Your task to perform on an android device: delete location history Image 0: 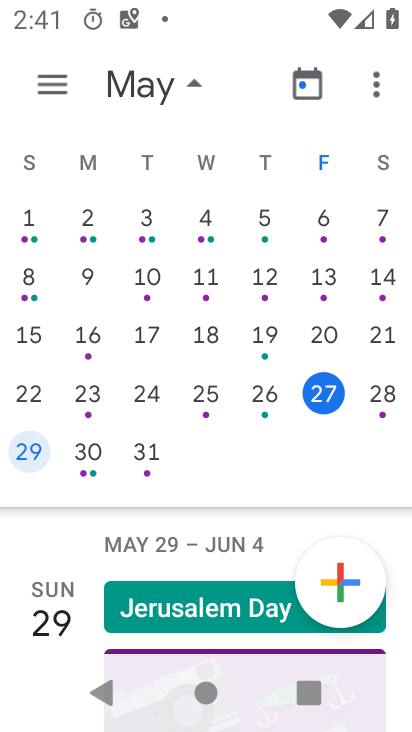
Step 0: press home button
Your task to perform on an android device: delete location history Image 1: 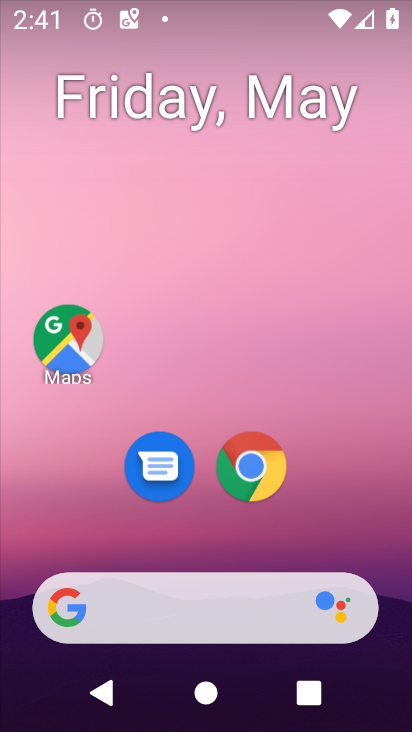
Step 1: drag from (340, 457) to (345, 50)
Your task to perform on an android device: delete location history Image 2: 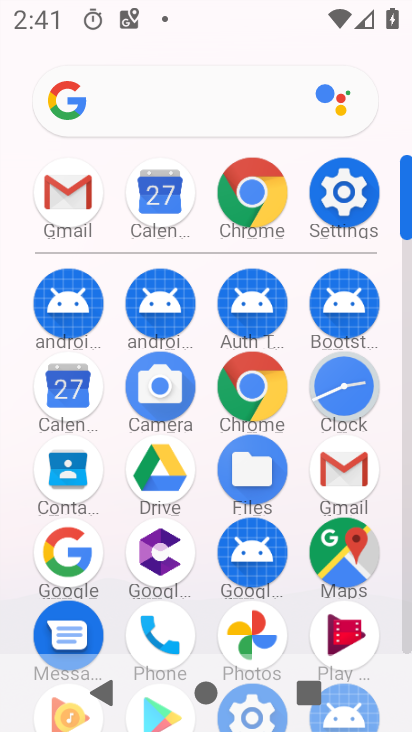
Step 2: click (341, 557)
Your task to perform on an android device: delete location history Image 3: 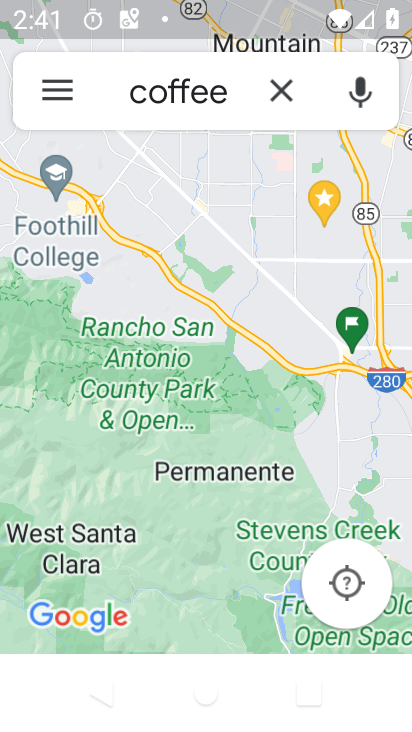
Step 3: click (68, 96)
Your task to perform on an android device: delete location history Image 4: 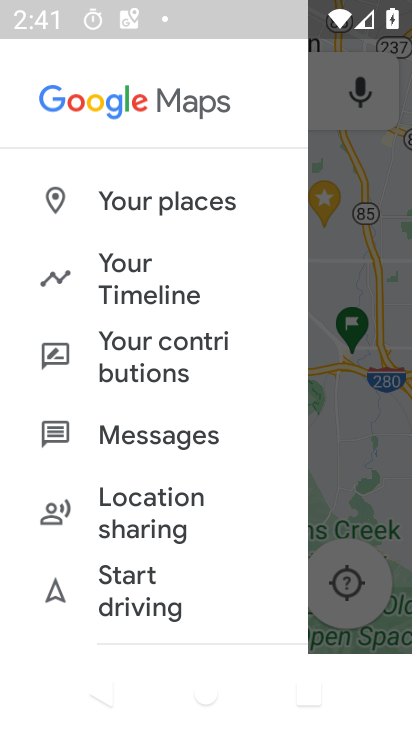
Step 4: click (113, 287)
Your task to perform on an android device: delete location history Image 5: 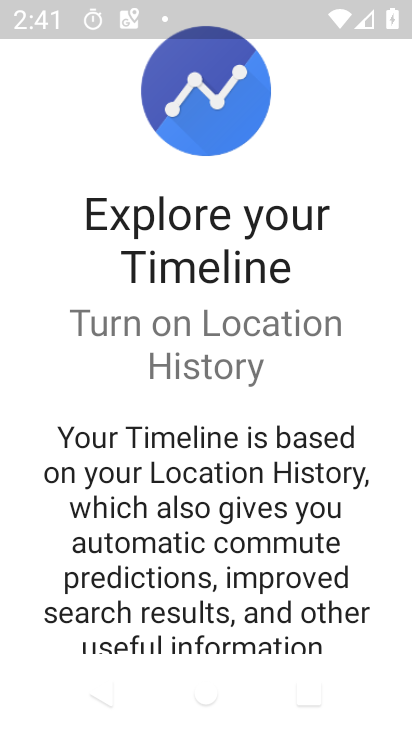
Step 5: drag from (179, 543) to (228, 129)
Your task to perform on an android device: delete location history Image 6: 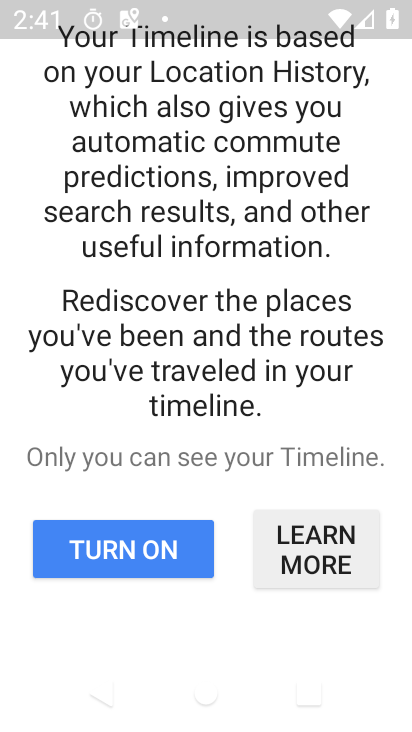
Step 6: drag from (189, 470) to (242, 104)
Your task to perform on an android device: delete location history Image 7: 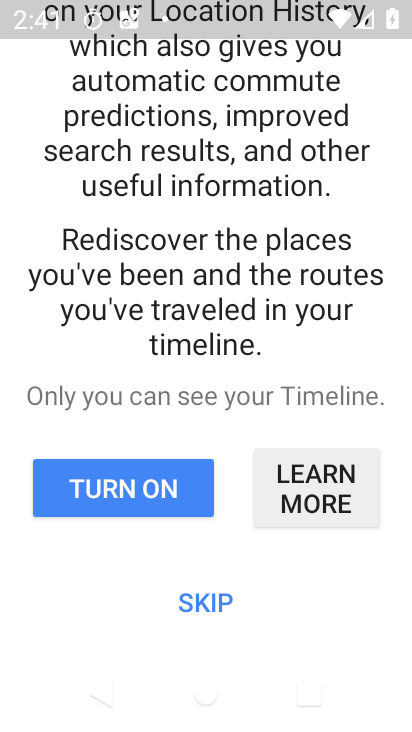
Step 7: click (217, 589)
Your task to perform on an android device: delete location history Image 8: 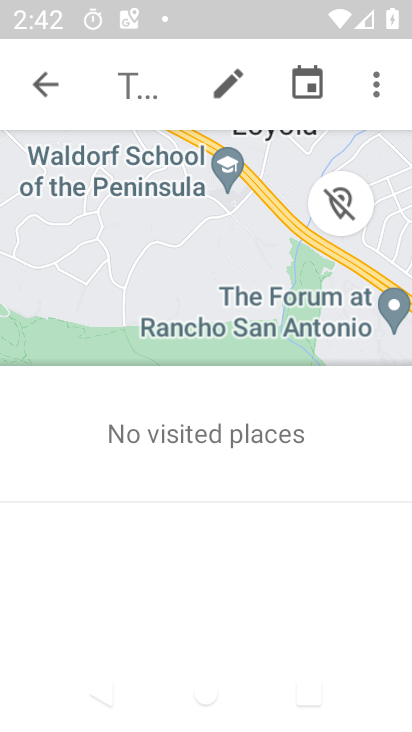
Step 8: click (379, 94)
Your task to perform on an android device: delete location history Image 9: 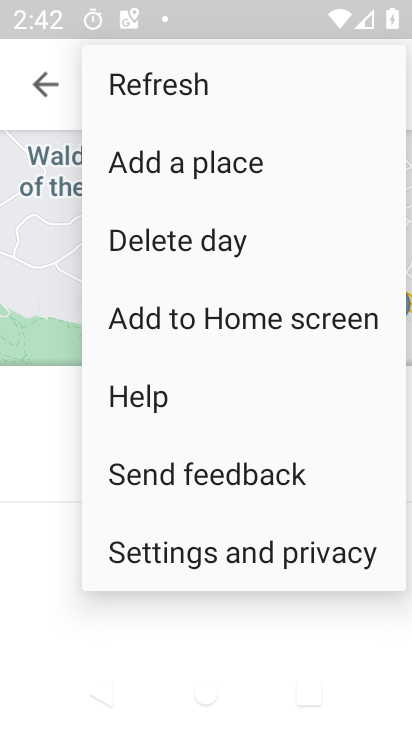
Step 9: click (231, 544)
Your task to perform on an android device: delete location history Image 10: 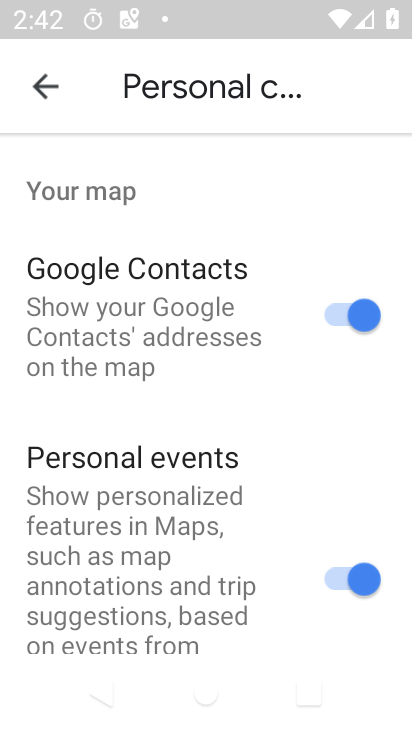
Step 10: click (215, 252)
Your task to perform on an android device: delete location history Image 11: 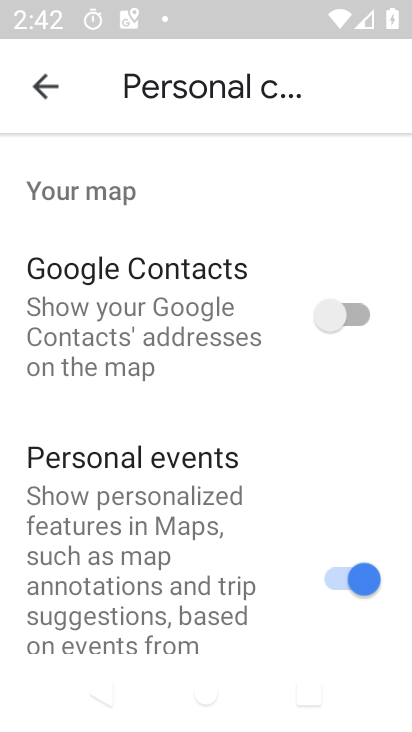
Step 11: drag from (173, 588) to (205, 210)
Your task to perform on an android device: delete location history Image 12: 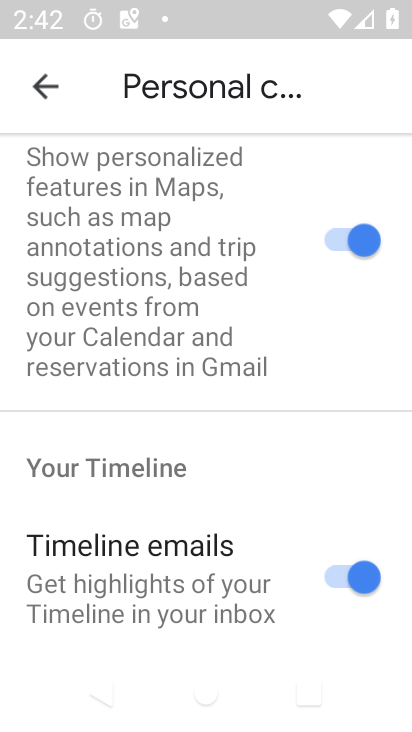
Step 12: drag from (151, 593) to (193, 111)
Your task to perform on an android device: delete location history Image 13: 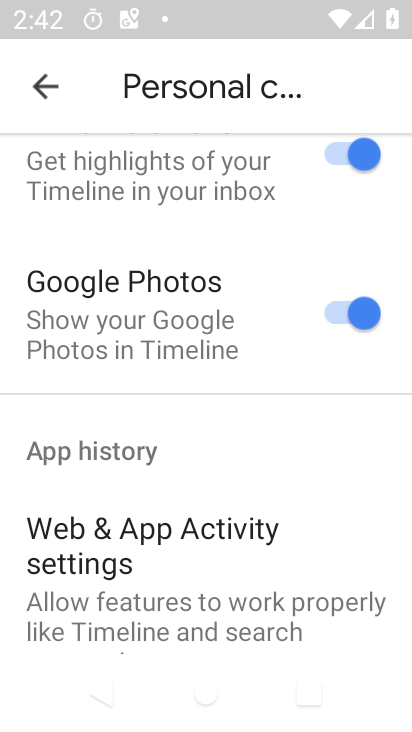
Step 13: drag from (217, 577) to (250, 192)
Your task to perform on an android device: delete location history Image 14: 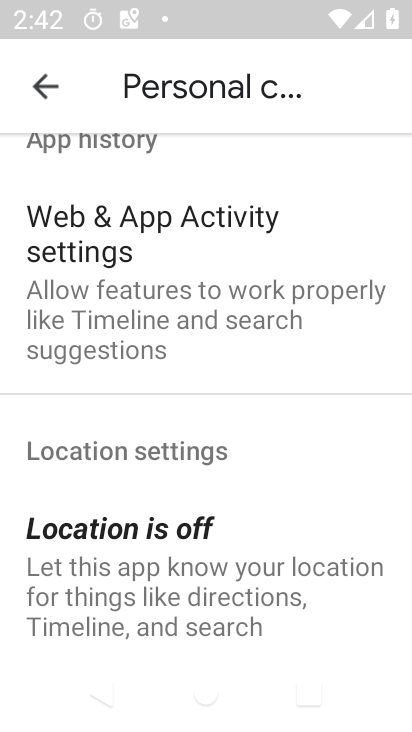
Step 14: drag from (256, 625) to (249, 218)
Your task to perform on an android device: delete location history Image 15: 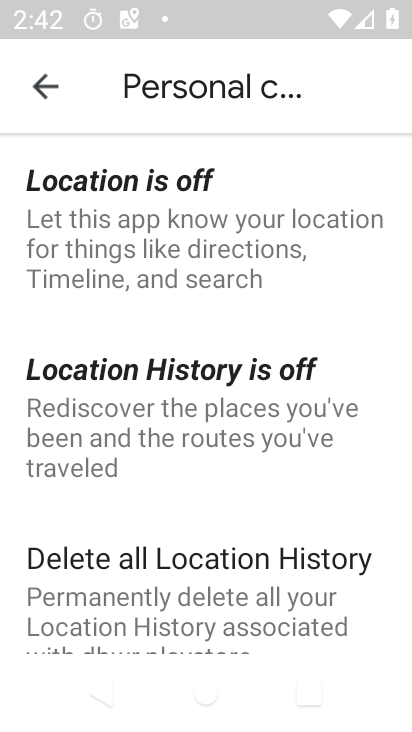
Step 15: drag from (245, 502) to (227, 238)
Your task to perform on an android device: delete location history Image 16: 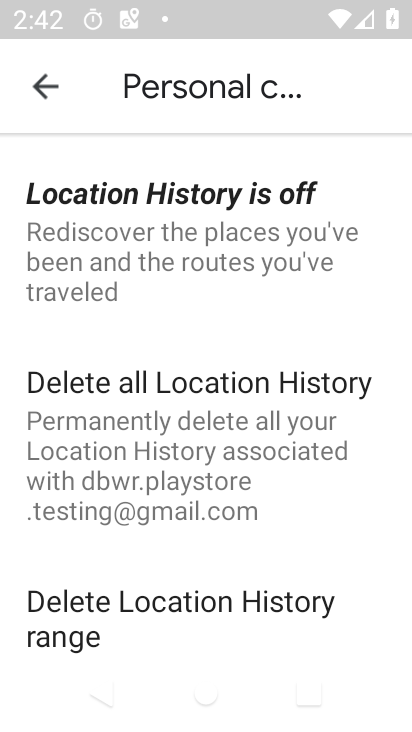
Step 16: click (167, 417)
Your task to perform on an android device: delete location history Image 17: 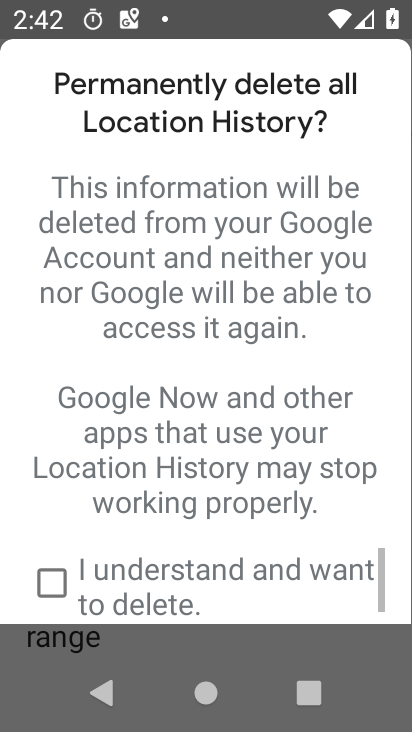
Step 17: drag from (116, 521) to (181, 112)
Your task to perform on an android device: delete location history Image 18: 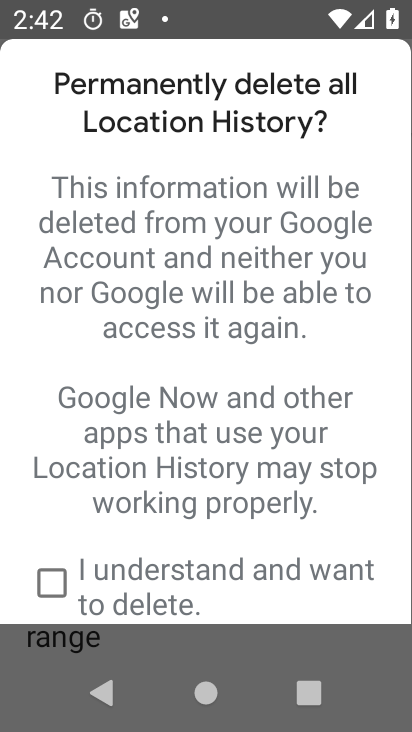
Step 18: click (50, 595)
Your task to perform on an android device: delete location history Image 19: 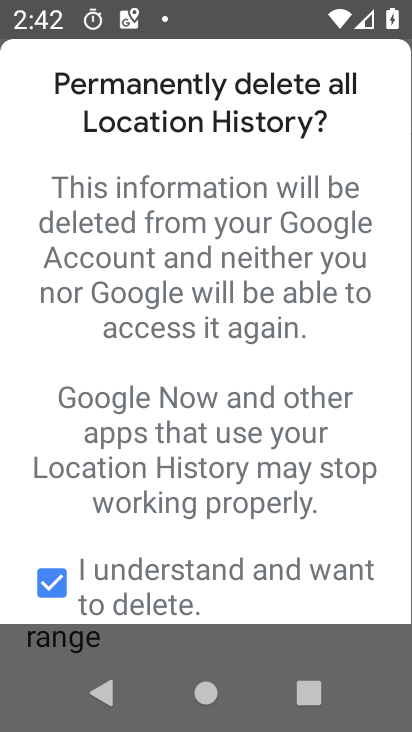
Step 19: task complete